Your task to perform on an android device: open device folders in google photos Image 0: 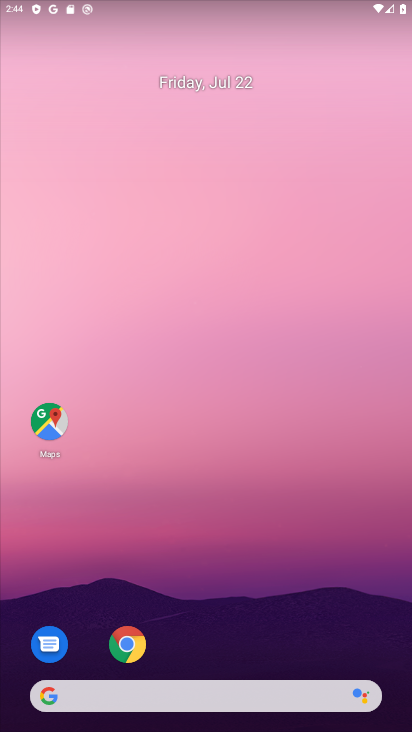
Step 0: drag from (252, 589) to (280, 273)
Your task to perform on an android device: open device folders in google photos Image 1: 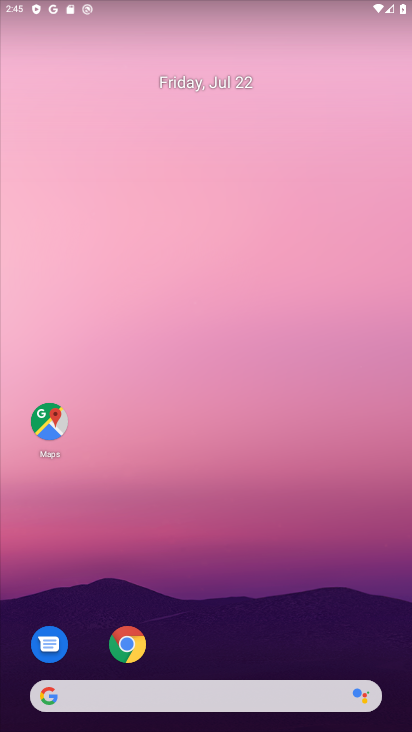
Step 1: drag from (264, 599) to (140, 109)
Your task to perform on an android device: open device folders in google photos Image 2: 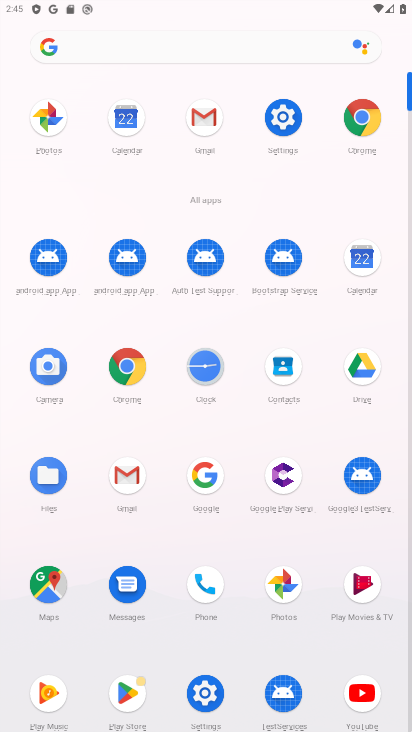
Step 2: click (284, 580)
Your task to perform on an android device: open device folders in google photos Image 3: 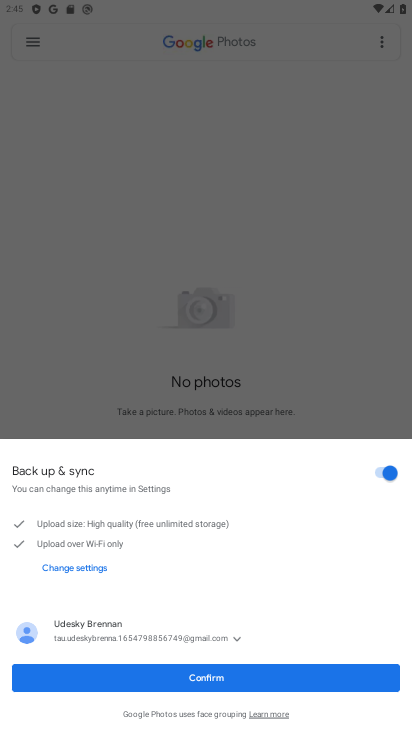
Step 3: task complete